Your task to perform on an android device: Go to Amazon Image 0: 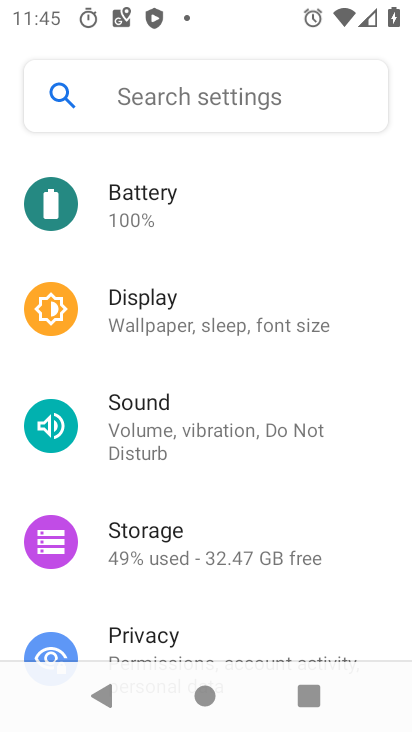
Step 0: press home button
Your task to perform on an android device: Go to Amazon Image 1: 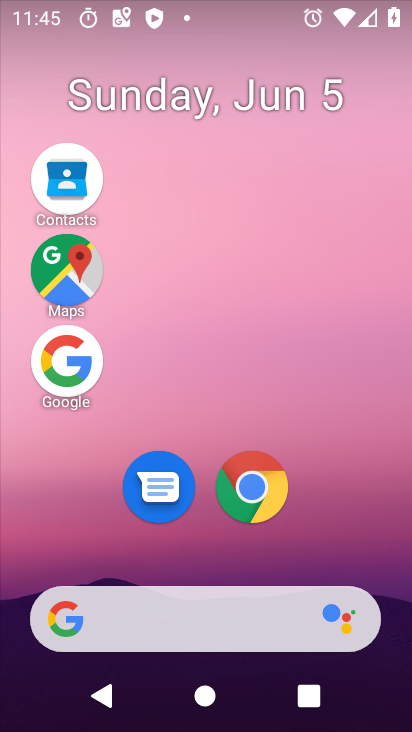
Step 1: drag from (226, 641) to (241, 204)
Your task to perform on an android device: Go to Amazon Image 2: 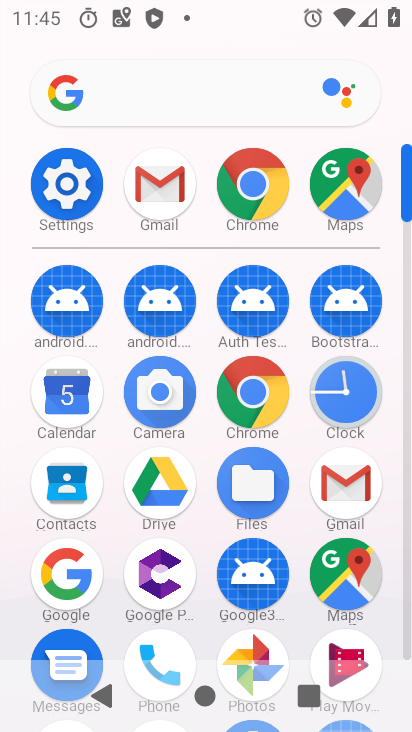
Step 2: click (263, 213)
Your task to perform on an android device: Go to Amazon Image 3: 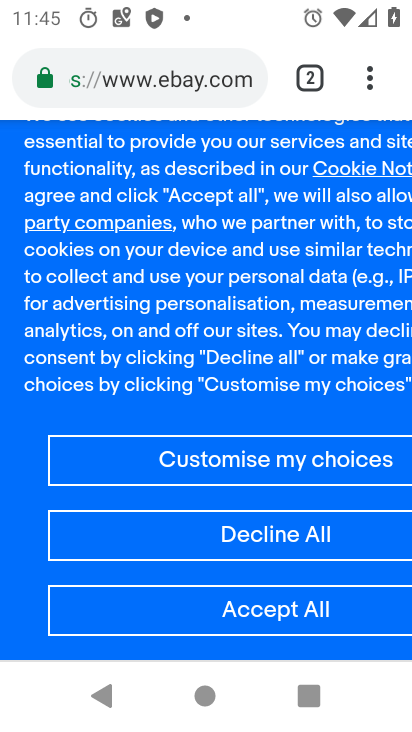
Step 3: click (235, 109)
Your task to perform on an android device: Go to Amazon Image 4: 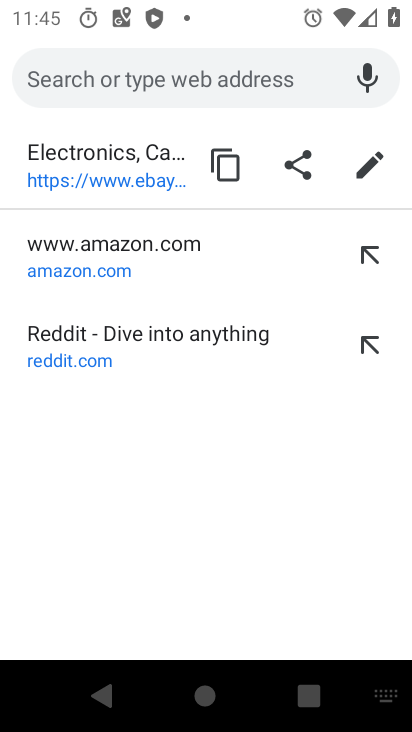
Step 4: click (235, 278)
Your task to perform on an android device: Go to Amazon Image 5: 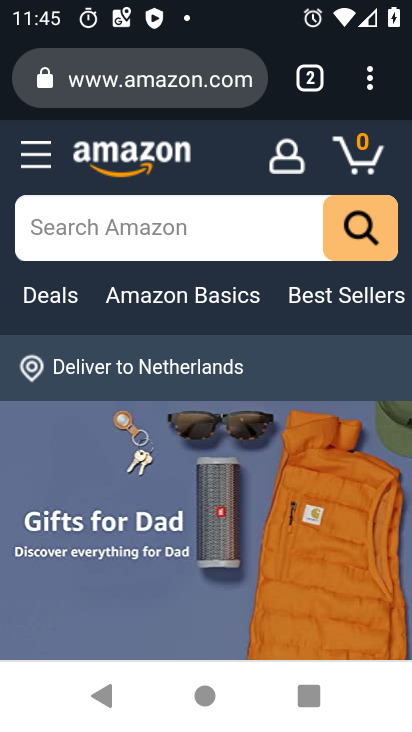
Step 5: task complete